Your task to perform on an android device: see sites visited before in the chrome app Image 0: 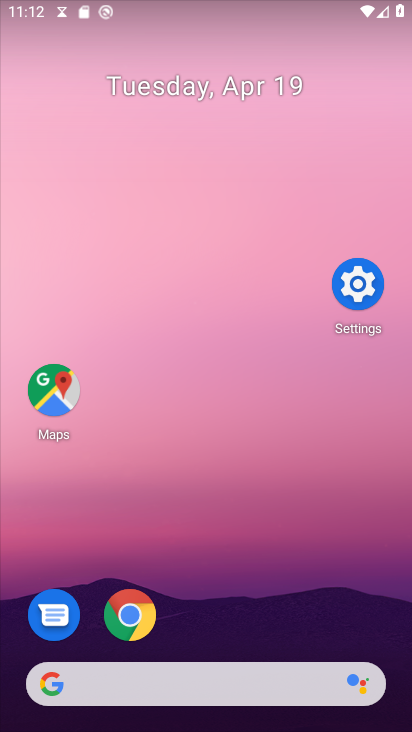
Step 0: drag from (207, 615) to (279, 262)
Your task to perform on an android device: see sites visited before in the chrome app Image 1: 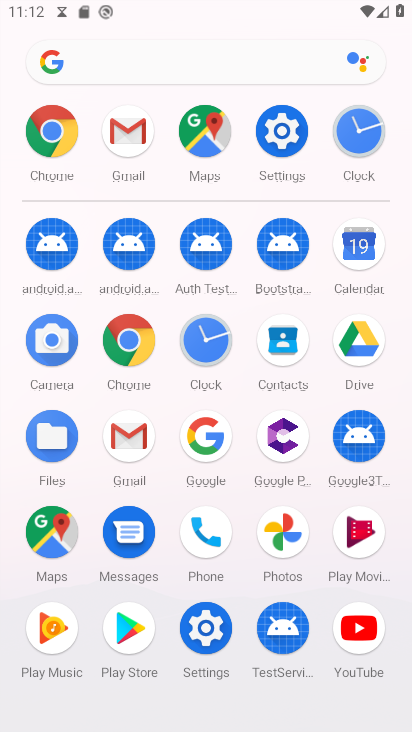
Step 1: click (125, 342)
Your task to perform on an android device: see sites visited before in the chrome app Image 2: 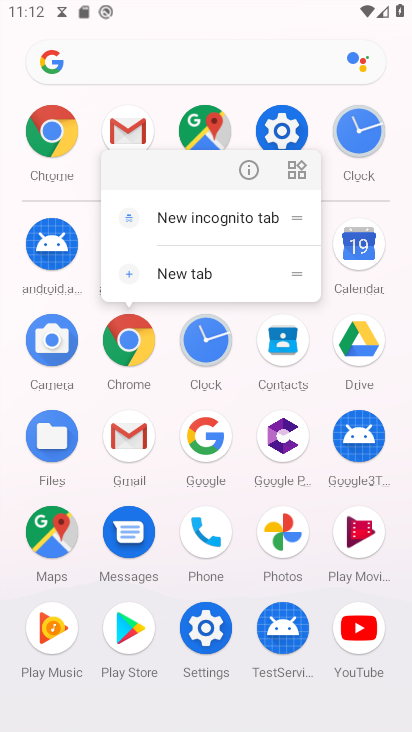
Step 2: click (251, 177)
Your task to perform on an android device: see sites visited before in the chrome app Image 3: 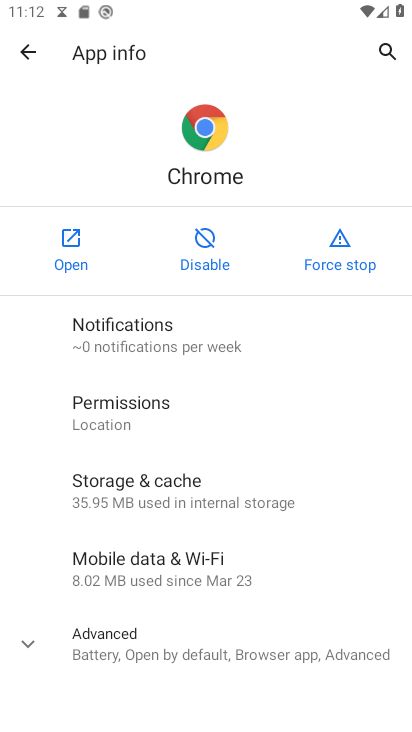
Step 3: click (52, 246)
Your task to perform on an android device: see sites visited before in the chrome app Image 4: 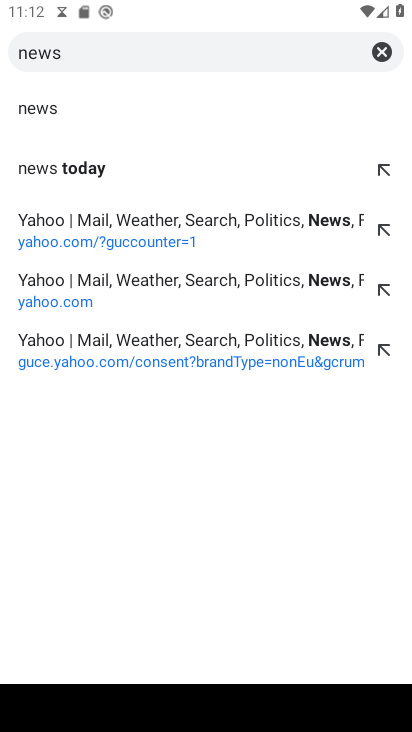
Step 4: click (386, 47)
Your task to perform on an android device: see sites visited before in the chrome app Image 5: 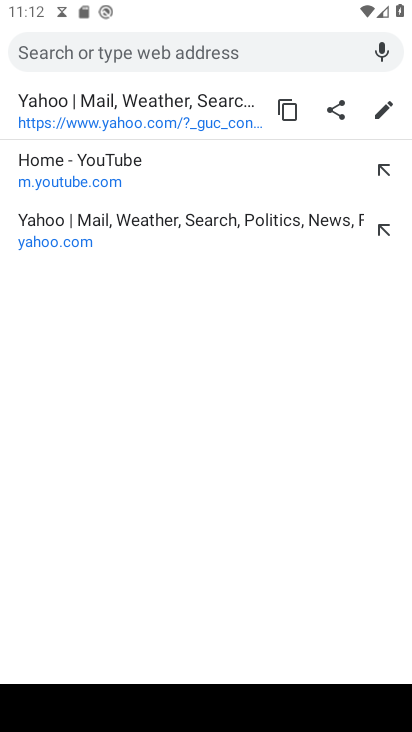
Step 5: press back button
Your task to perform on an android device: see sites visited before in the chrome app Image 6: 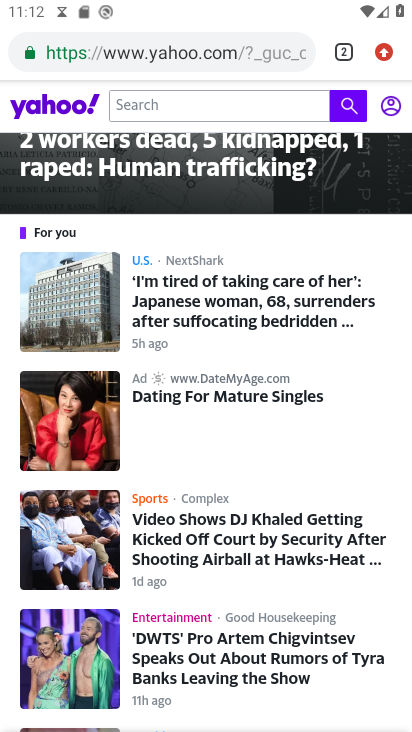
Step 6: click (383, 56)
Your task to perform on an android device: see sites visited before in the chrome app Image 7: 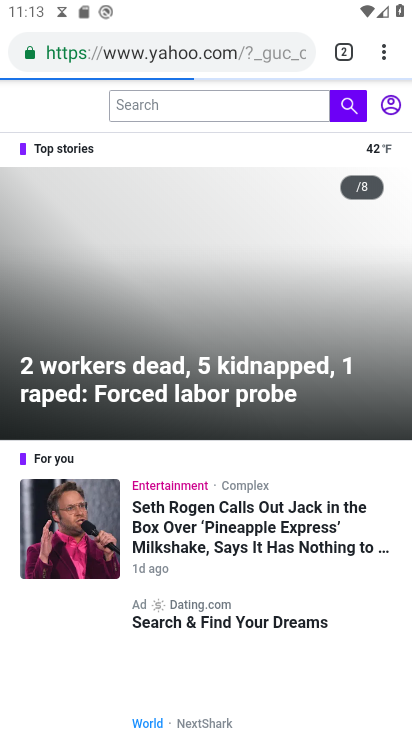
Step 7: task complete